Your task to perform on an android device: When is my next appointment? Image 0: 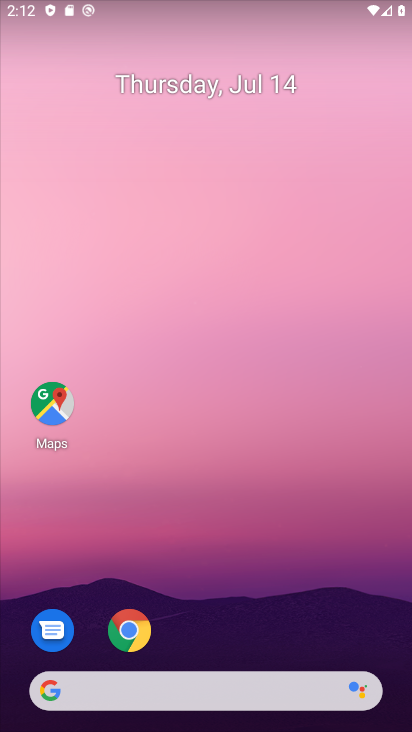
Step 0: press home button
Your task to perform on an android device: When is my next appointment? Image 1: 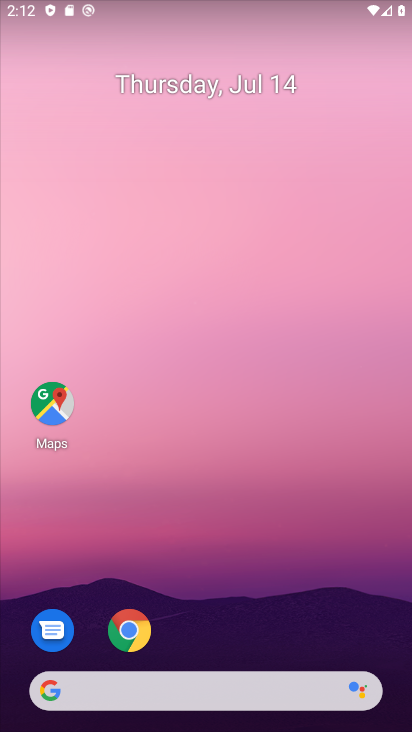
Step 1: drag from (220, 643) to (240, 25)
Your task to perform on an android device: When is my next appointment? Image 2: 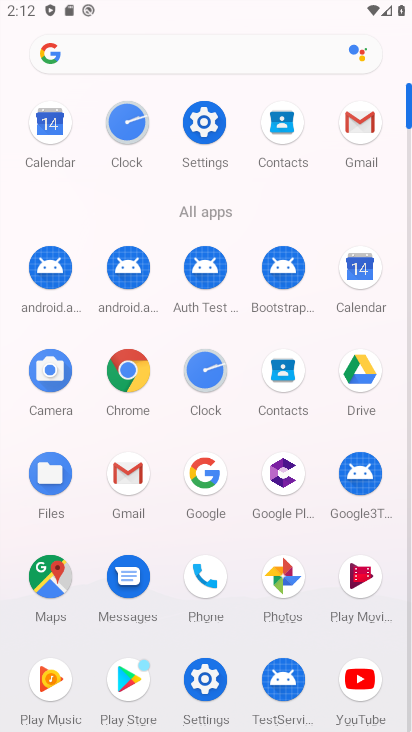
Step 2: click (360, 268)
Your task to perform on an android device: When is my next appointment? Image 3: 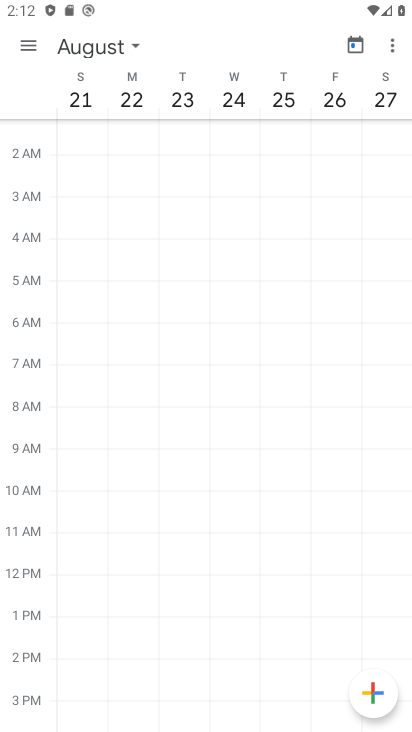
Step 3: click (136, 44)
Your task to perform on an android device: When is my next appointment? Image 4: 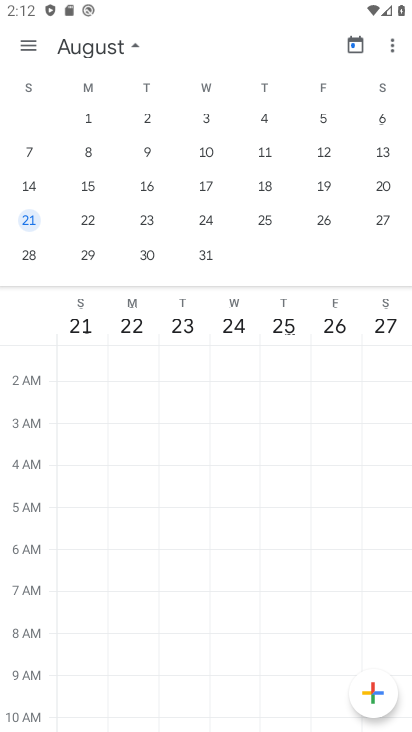
Step 4: drag from (64, 215) to (396, 215)
Your task to perform on an android device: When is my next appointment? Image 5: 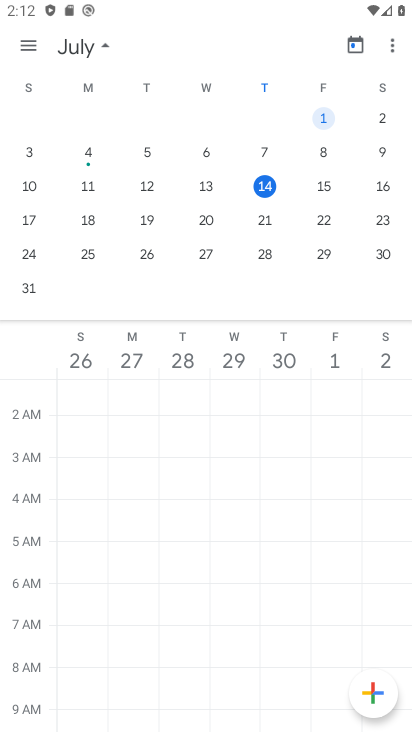
Step 5: click (265, 186)
Your task to perform on an android device: When is my next appointment? Image 6: 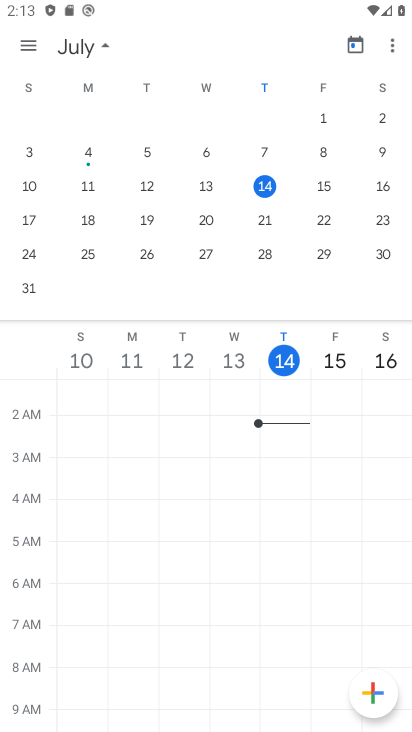
Step 6: click (282, 358)
Your task to perform on an android device: When is my next appointment? Image 7: 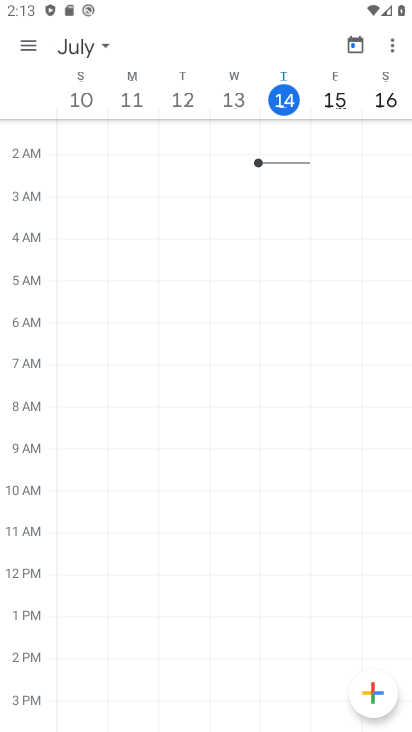
Step 7: click (285, 98)
Your task to perform on an android device: When is my next appointment? Image 8: 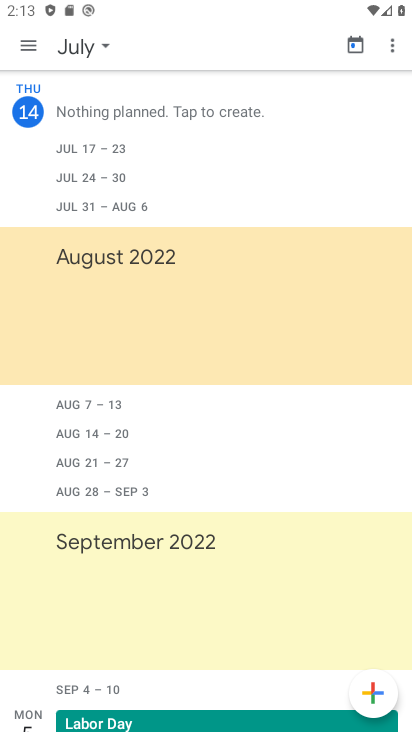
Step 8: task complete